Your task to perform on an android device: change timer sound Image 0: 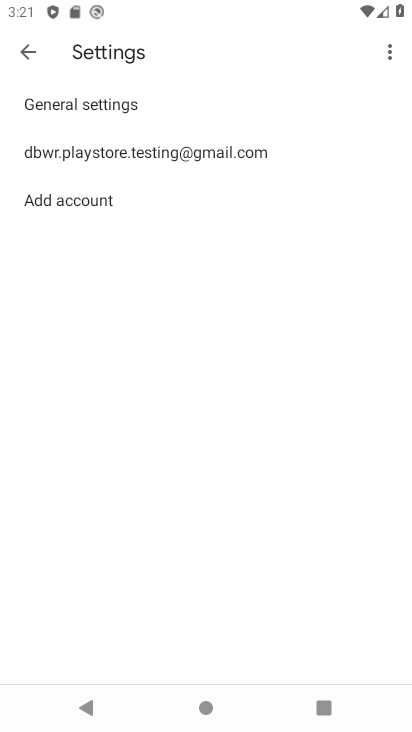
Step 0: press home button
Your task to perform on an android device: change timer sound Image 1: 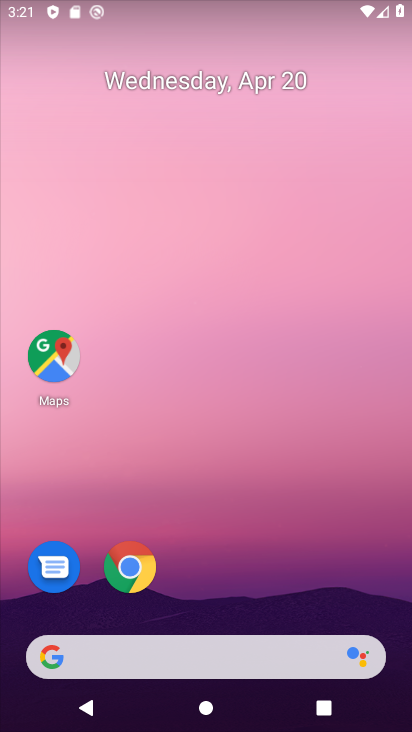
Step 1: drag from (308, 614) to (251, 28)
Your task to perform on an android device: change timer sound Image 2: 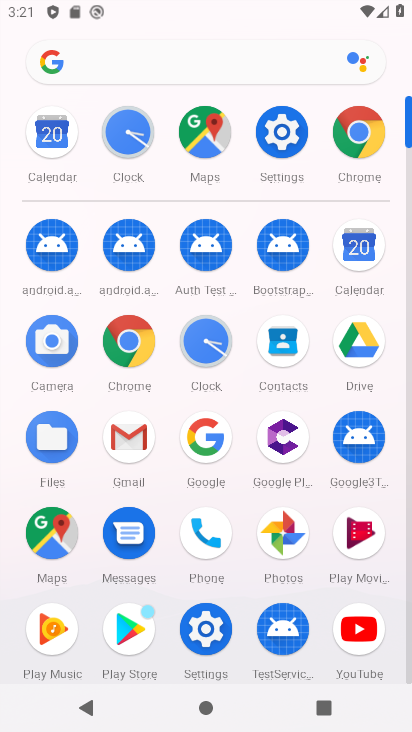
Step 2: click (222, 367)
Your task to perform on an android device: change timer sound Image 3: 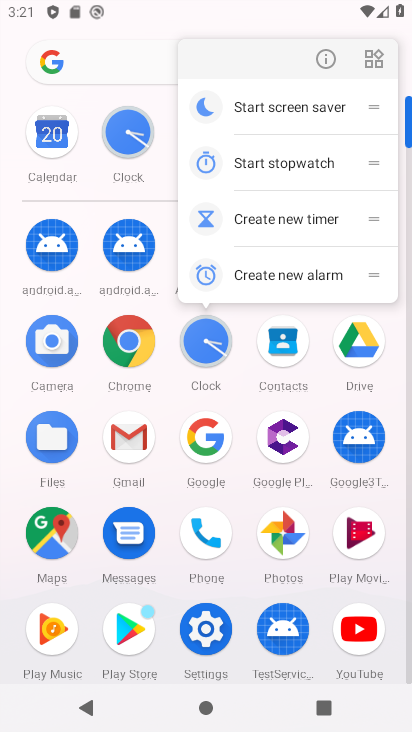
Step 3: click (216, 359)
Your task to perform on an android device: change timer sound Image 4: 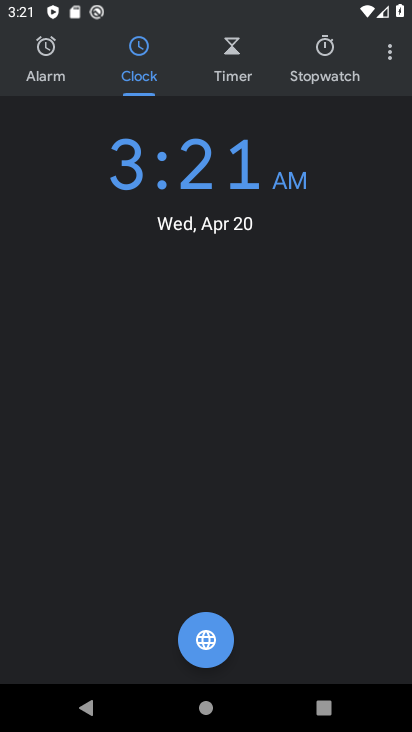
Step 4: click (392, 72)
Your task to perform on an android device: change timer sound Image 5: 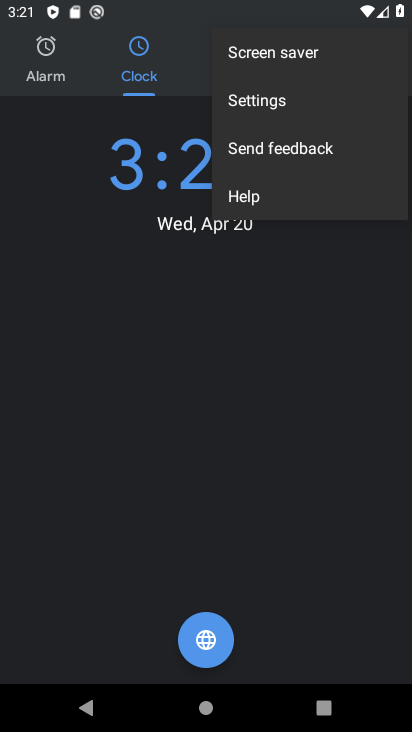
Step 5: click (354, 97)
Your task to perform on an android device: change timer sound Image 6: 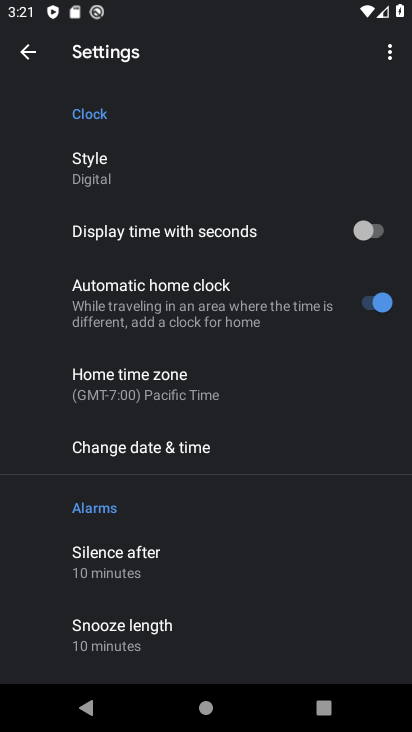
Step 6: drag from (270, 538) to (246, 132)
Your task to perform on an android device: change timer sound Image 7: 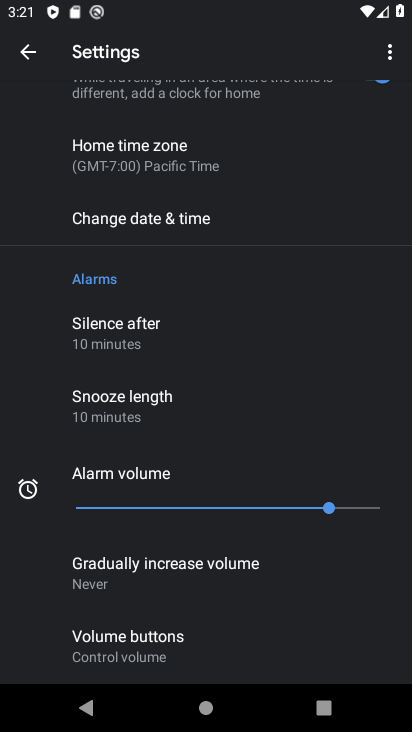
Step 7: drag from (248, 590) to (228, 196)
Your task to perform on an android device: change timer sound Image 8: 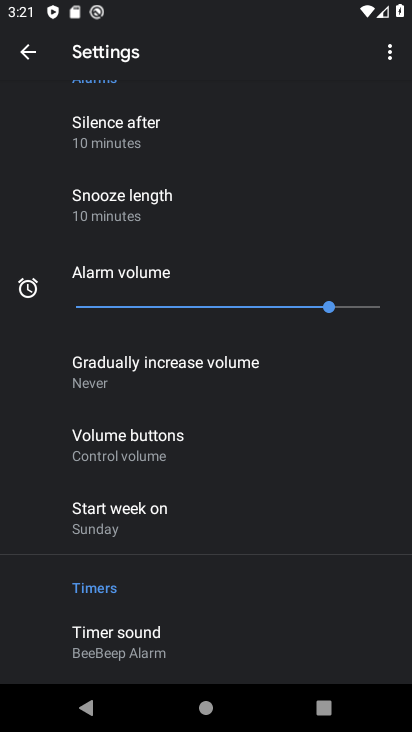
Step 8: drag from (250, 554) to (238, 260)
Your task to perform on an android device: change timer sound Image 9: 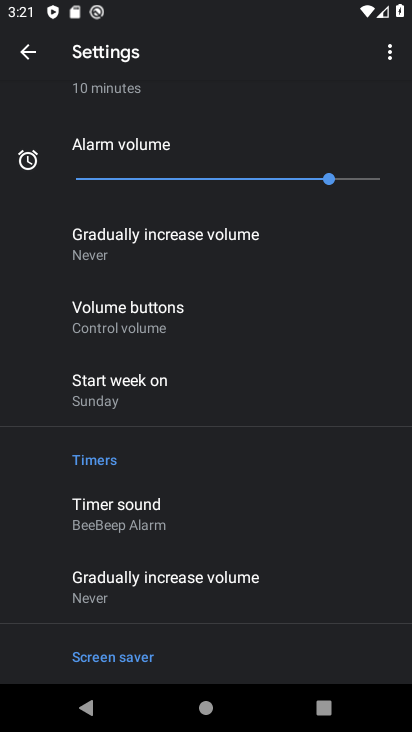
Step 9: click (223, 521)
Your task to perform on an android device: change timer sound Image 10: 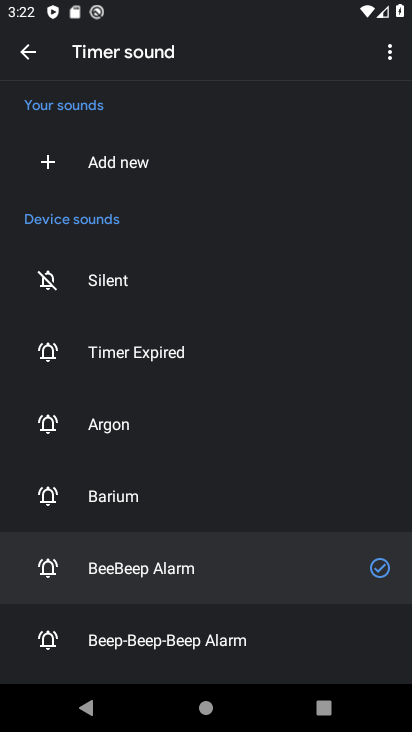
Step 10: click (206, 471)
Your task to perform on an android device: change timer sound Image 11: 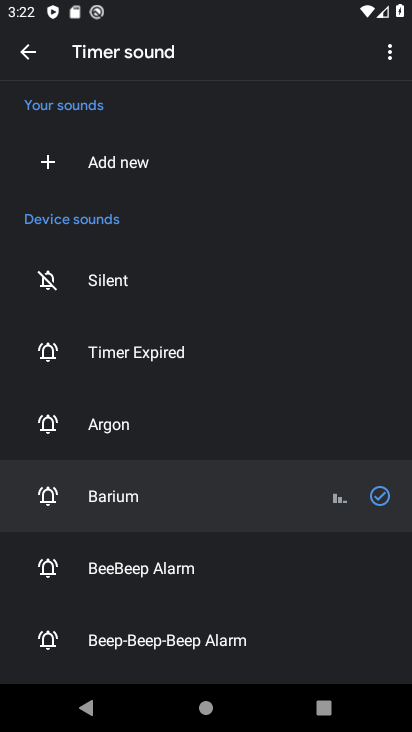
Step 11: task complete